Your task to perform on an android device: manage bookmarks in the chrome app Image 0: 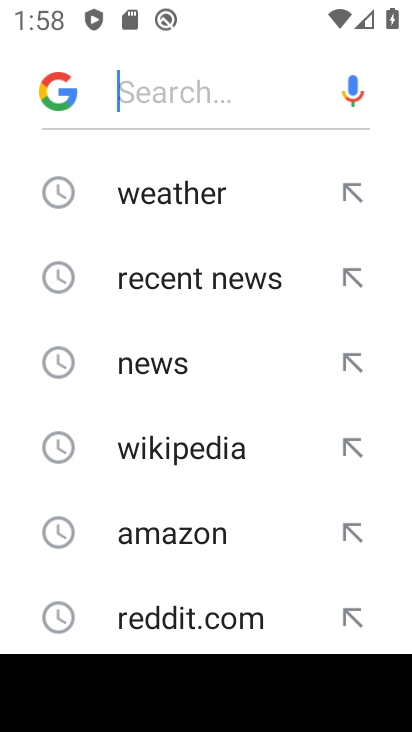
Step 0: press back button
Your task to perform on an android device: manage bookmarks in the chrome app Image 1: 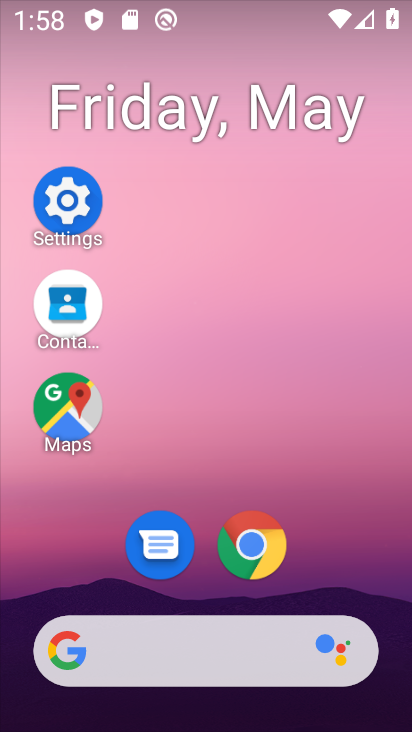
Step 1: click (265, 550)
Your task to perform on an android device: manage bookmarks in the chrome app Image 2: 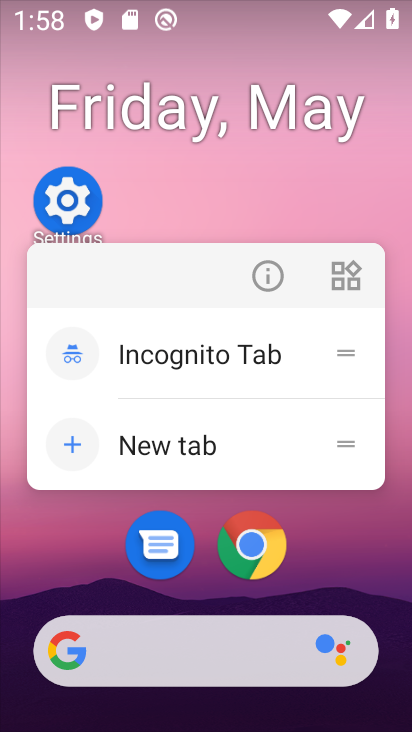
Step 2: click (267, 557)
Your task to perform on an android device: manage bookmarks in the chrome app Image 3: 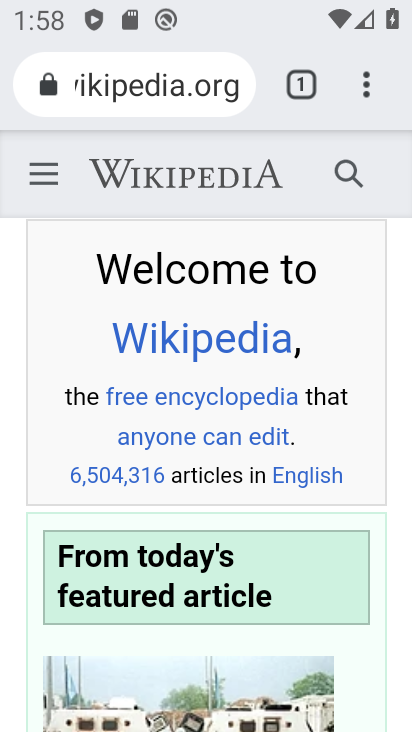
Step 3: click (367, 76)
Your task to perform on an android device: manage bookmarks in the chrome app Image 4: 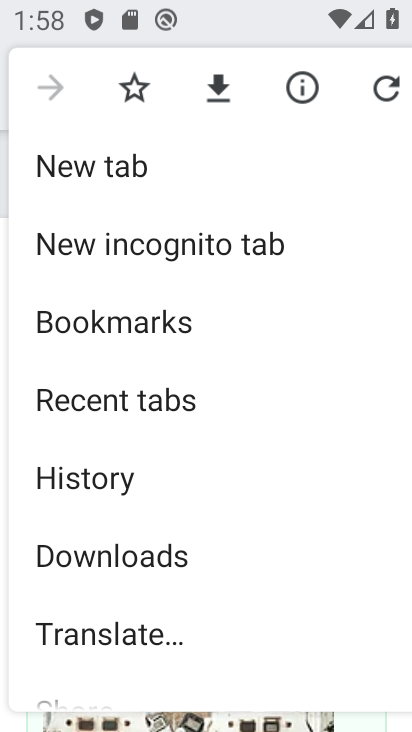
Step 4: drag from (168, 529) to (163, 165)
Your task to perform on an android device: manage bookmarks in the chrome app Image 5: 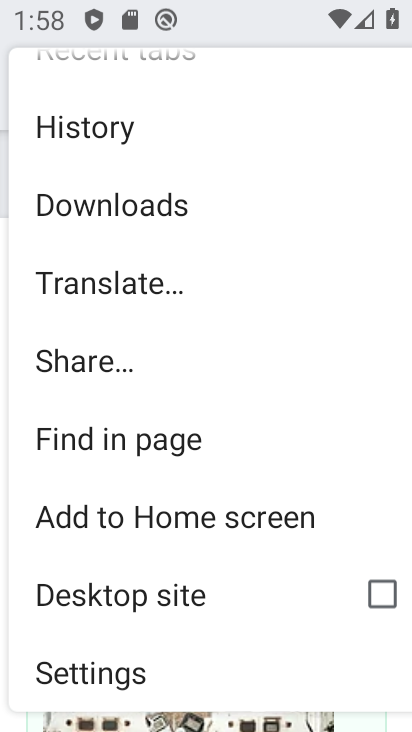
Step 5: drag from (249, 573) to (287, 189)
Your task to perform on an android device: manage bookmarks in the chrome app Image 6: 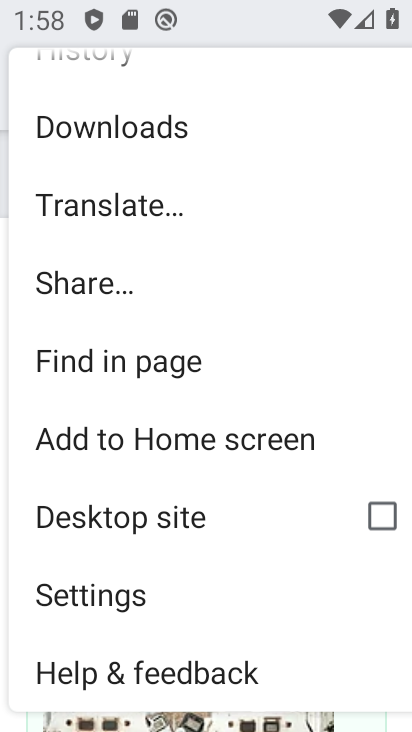
Step 6: drag from (301, 143) to (303, 690)
Your task to perform on an android device: manage bookmarks in the chrome app Image 7: 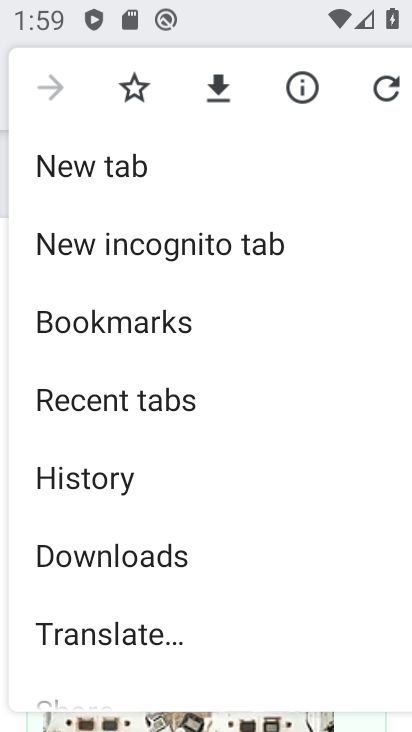
Step 7: click (216, 332)
Your task to perform on an android device: manage bookmarks in the chrome app Image 8: 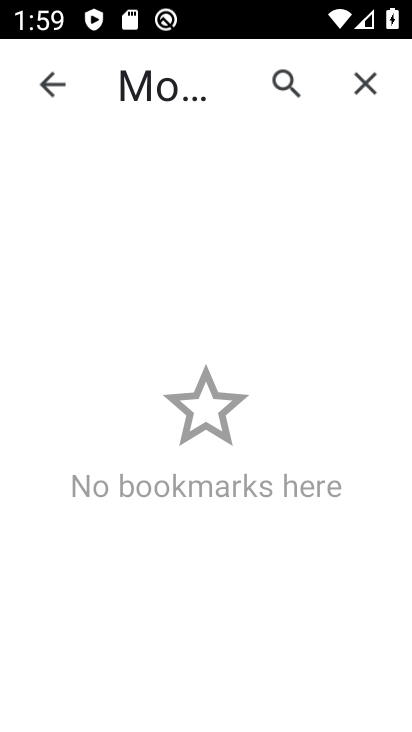
Step 8: task complete